Your task to perform on an android device: Find coffee shops on Maps Image 0: 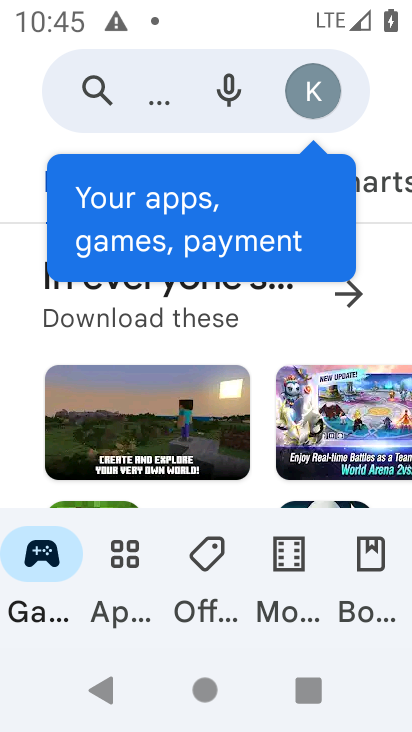
Step 0: press home button
Your task to perform on an android device: Find coffee shops on Maps Image 1: 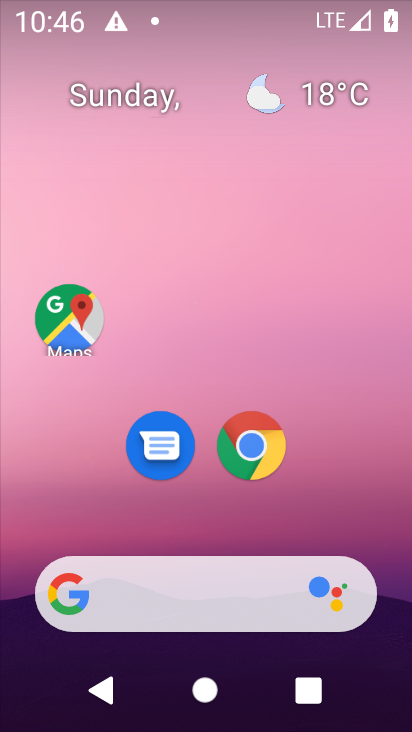
Step 1: drag from (67, 315) to (8, 315)
Your task to perform on an android device: Find coffee shops on Maps Image 2: 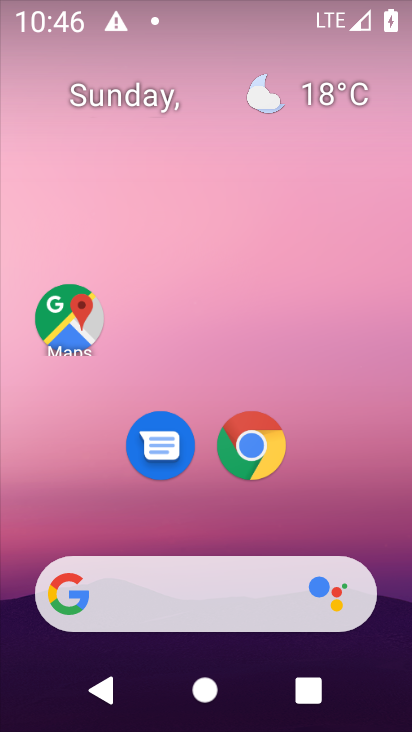
Step 2: click (56, 343)
Your task to perform on an android device: Find coffee shops on Maps Image 3: 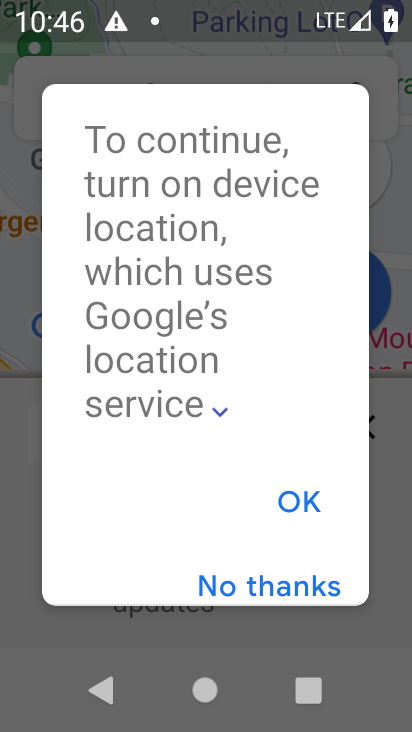
Step 3: click (294, 518)
Your task to perform on an android device: Find coffee shops on Maps Image 4: 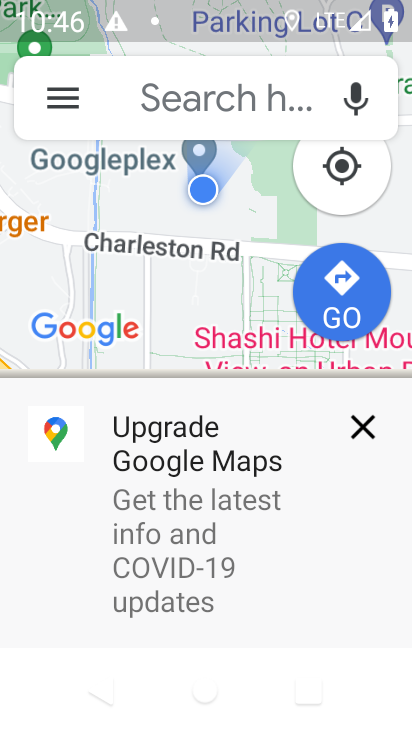
Step 4: click (194, 116)
Your task to perform on an android device: Find coffee shops on Maps Image 5: 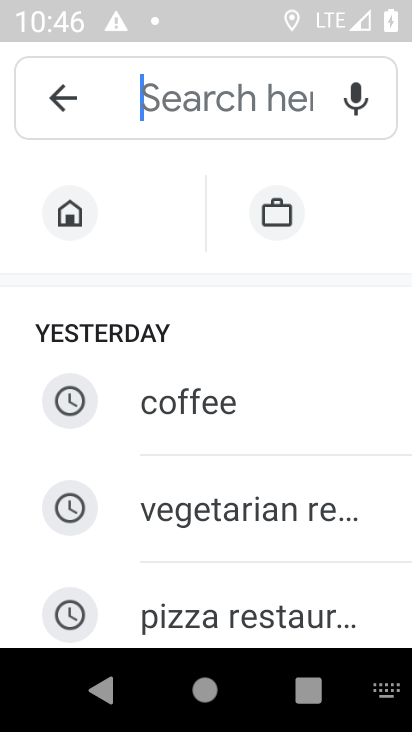
Step 5: type "coffee shops"
Your task to perform on an android device: Find coffee shops on Maps Image 6: 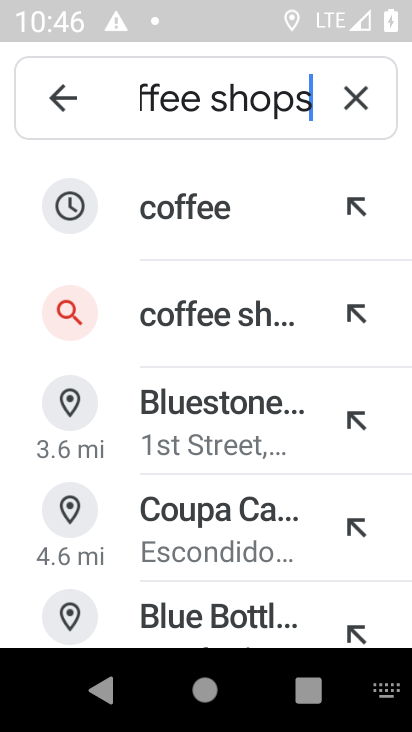
Step 6: click (206, 334)
Your task to perform on an android device: Find coffee shops on Maps Image 7: 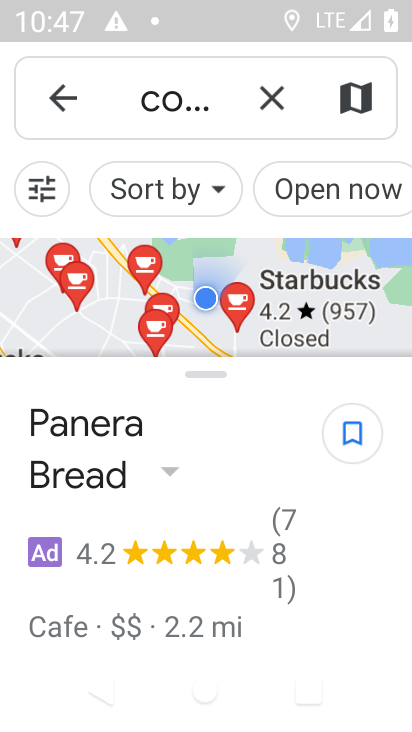
Step 7: task complete